Your task to perform on an android device: Go to display settings Image 0: 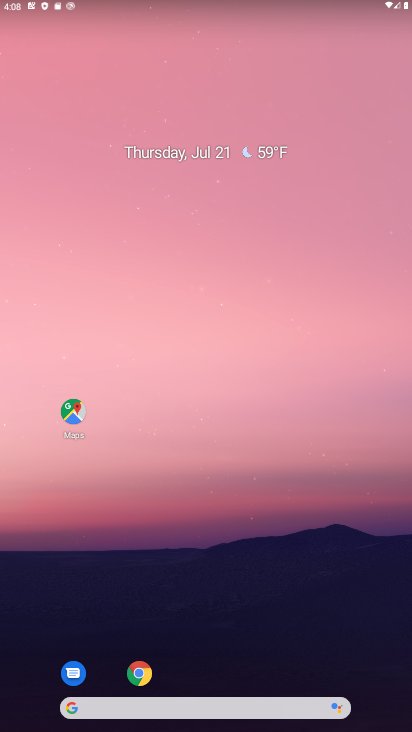
Step 0: drag from (383, 670) to (325, 127)
Your task to perform on an android device: Go to display settings Image 1: 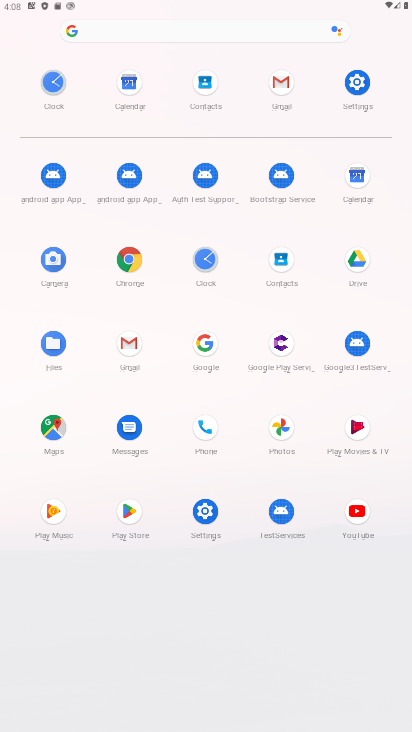
Step 1: click (205, 513)
Your task to perform on an android device: Go to display settings Image 2: 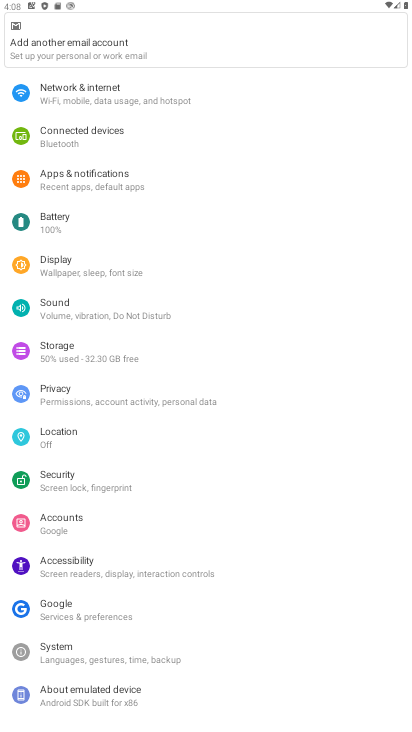
Step 2: click (60, 265)
Your task to perform on an android device: Go to display settings Image 3: 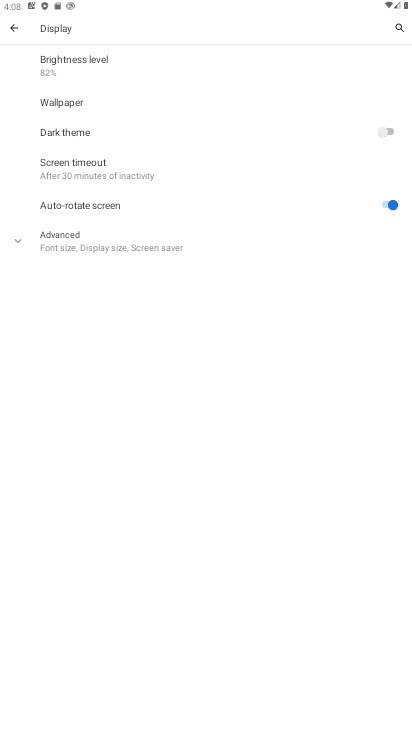
Step 3: click (18, 242)
Your task to perform on an android device: Go to display settings Image 4: 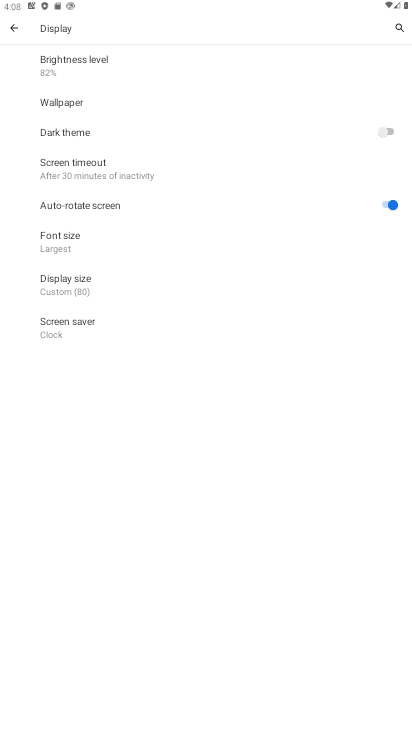
Step 4: task complete